Your task to perform on an android device: turn off notifications in google photos Image 0: 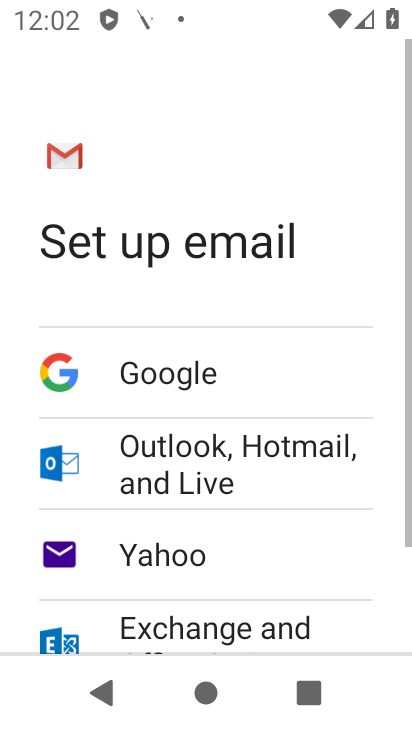
Step 0: press home button
Your task to perform on an android device: turn off notifications in google photos Image 1: 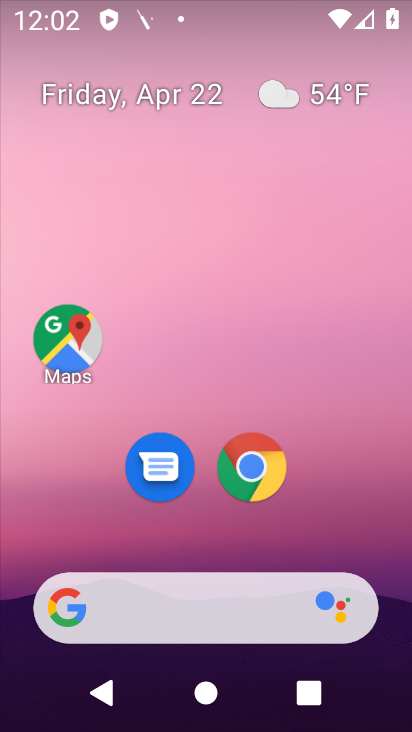
Step 1: drag from (401, 608) to (303, 226)
Your task to perform on an android device: turn off notifications in google photos Image 2: 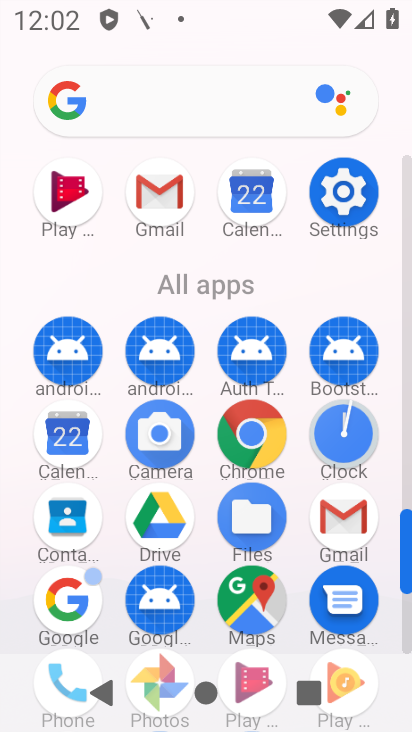
Step 2: click (405, 635)
Your task to perform on an android device: turn off notifications in google photos Image 3: 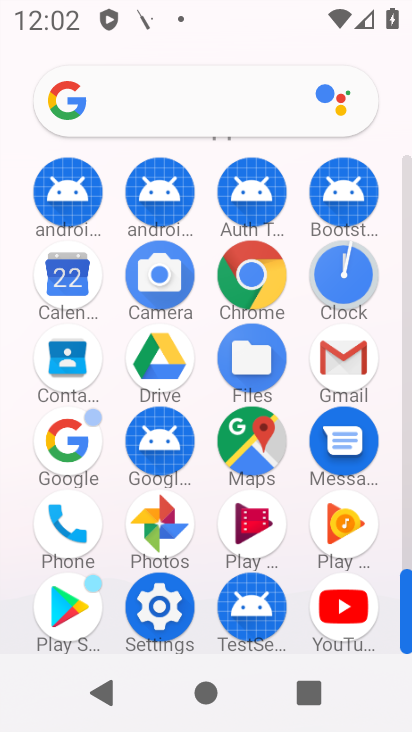
Step 3: click (158, 522)
Your task to perform on an android device: turn off notifications in google photos Image 4: 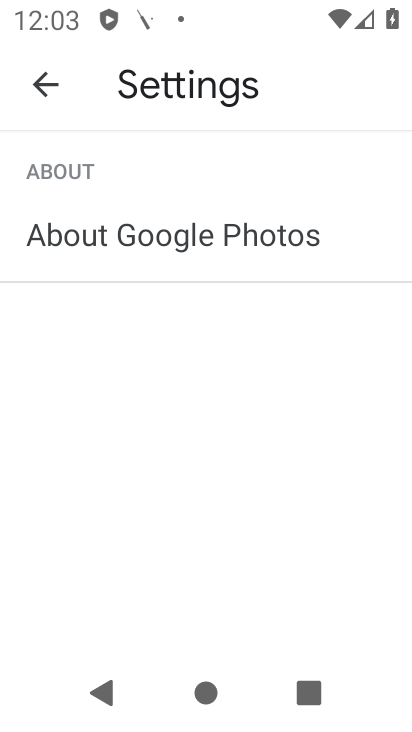
Step 4: press back button
Your task to perform on an android device: turn off notifications in google photos Image 5: 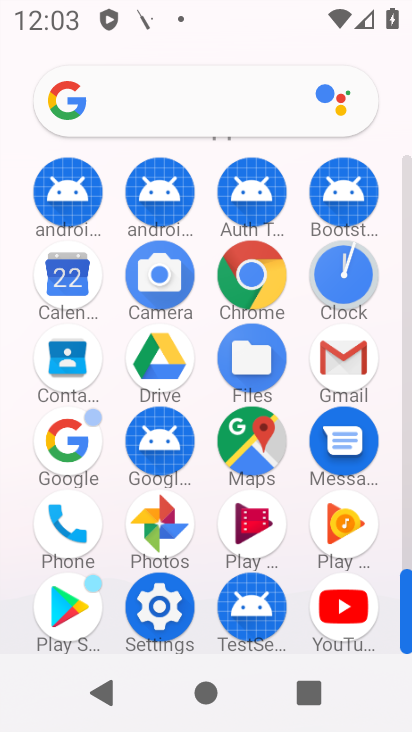
Step 5: click (158, 516)
Your task to perform on an android device: turn off notifications in google photos Image 6: 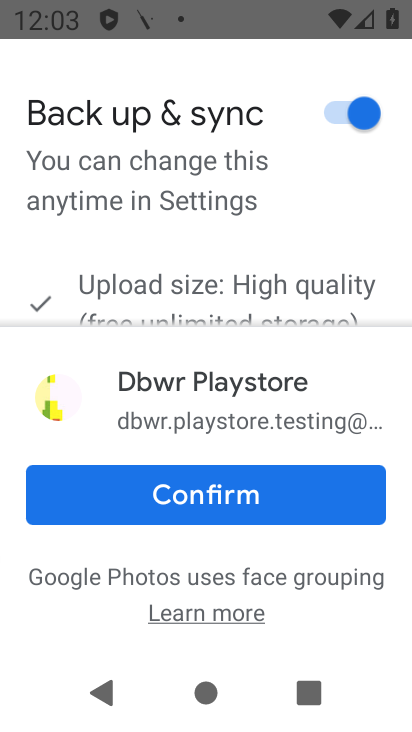
Step 6: click (193, 485)
Your task to perform on an android device: turn off notifications in google photos Image 7: 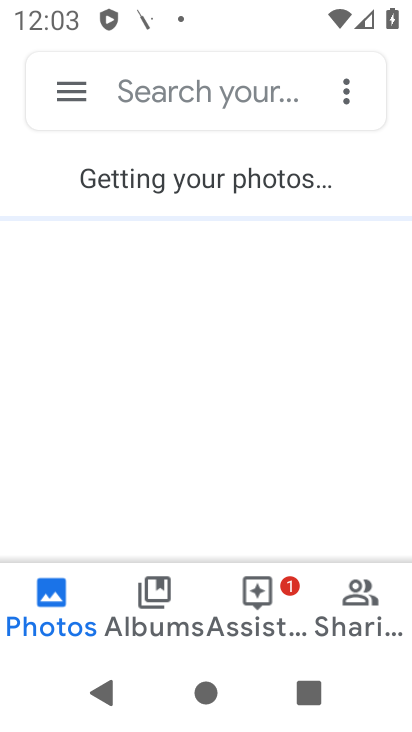
Step 7: click (72, 92)
Your task to perform on an android device: turn off notifications in google photos Image 8: 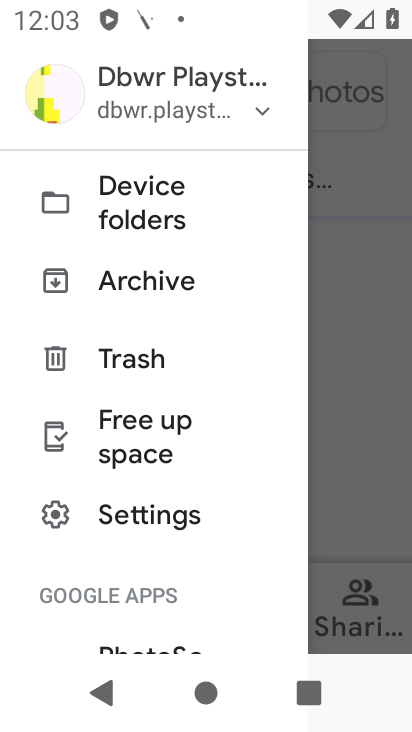
Step 8: click (149, 517)
Your task to perform on an android device: turn off notifications in google photos Image 9: 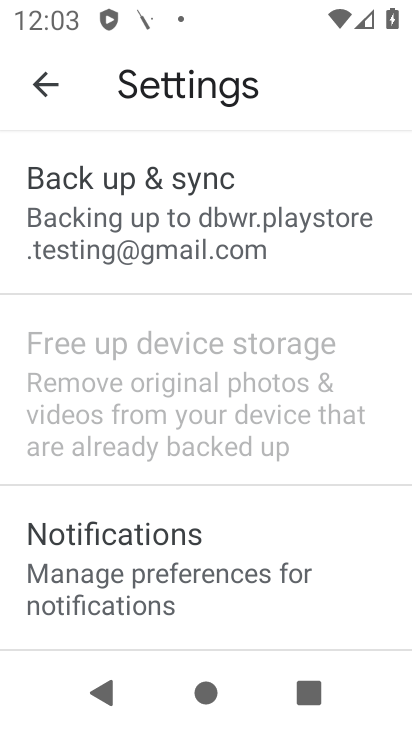
Step 9: click (124, 565)
Your task to perform on an android device: turn off notifications in google photos Image 10: 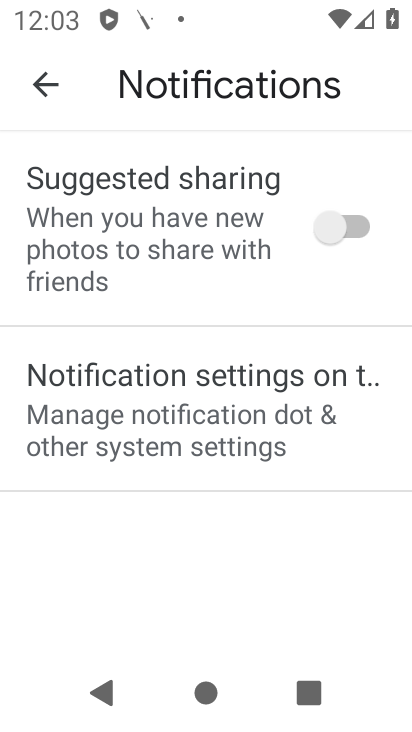
Step 10: click (148, 406)
Your task to perform on an android device: turn off notifications in google photos Image 11: 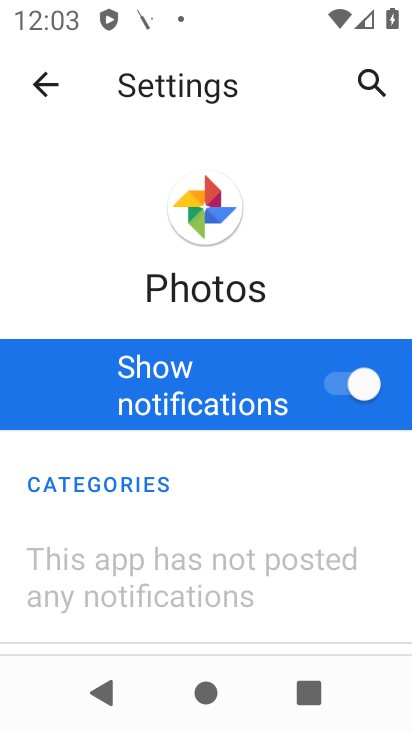
Step 11: click (337, 388)
Your task to perform on an android device: turn off notifications in google photos Image 12: 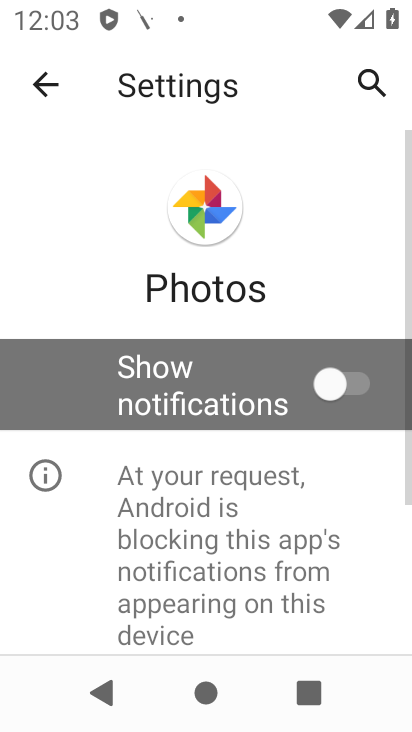
Step 12: task complete